Your task to perform on an android device: see tabs open on other devices in the chrome app Image 0: 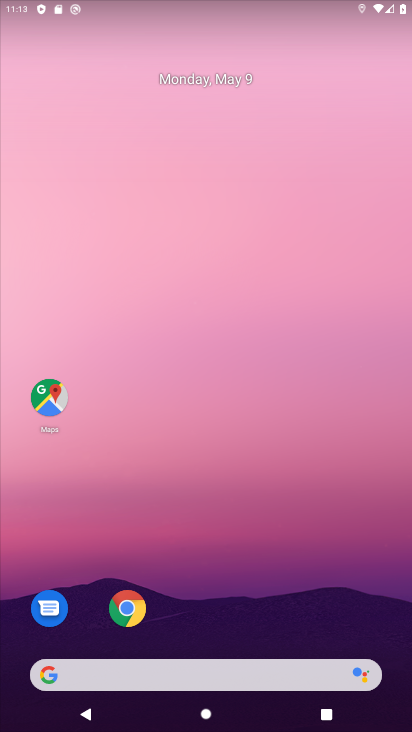
Step 0: click (130, 599)
Your task to perform on an android device: see tabs open on other devices in the chrome app Image 1: 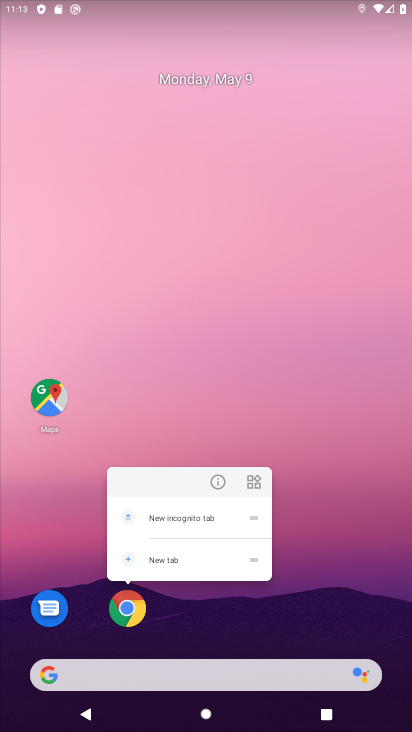
Step 1: click (210, 484)
Your task to perform on an android device: see tabs open on other devices in the chrome app Image 2: 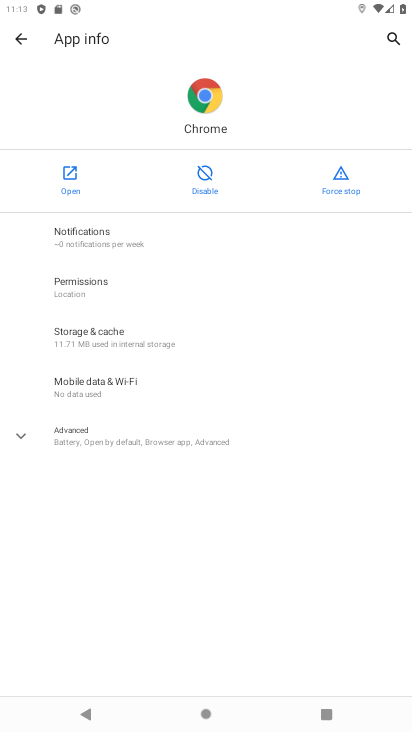
Step 2: click (66, 169)
Your task to perform on an android device: see tabs open on other devices in the chrome app Image 3: 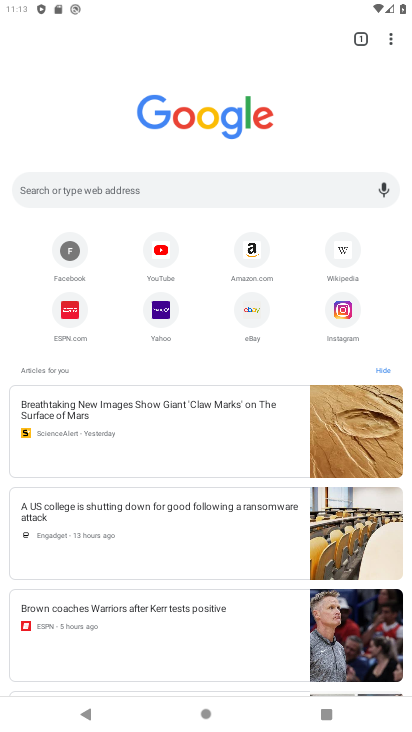
Step 3: click (363, 46)
Your task to perform on an android device: see tabs open on other devices in the chrome app Image 4: 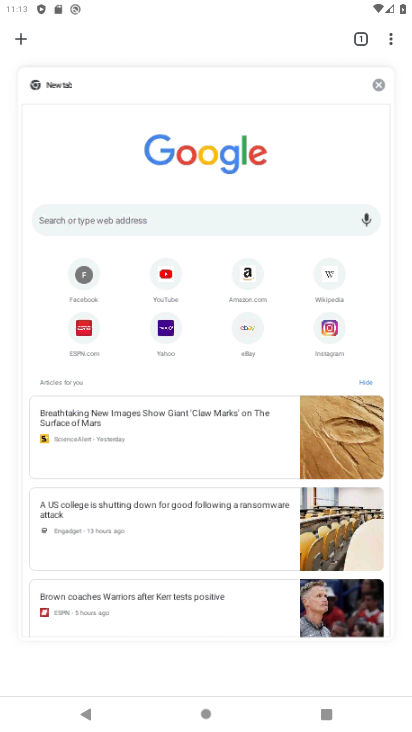
Step 4: task complete